Your task to perform on an android device: Open Google Image 0: 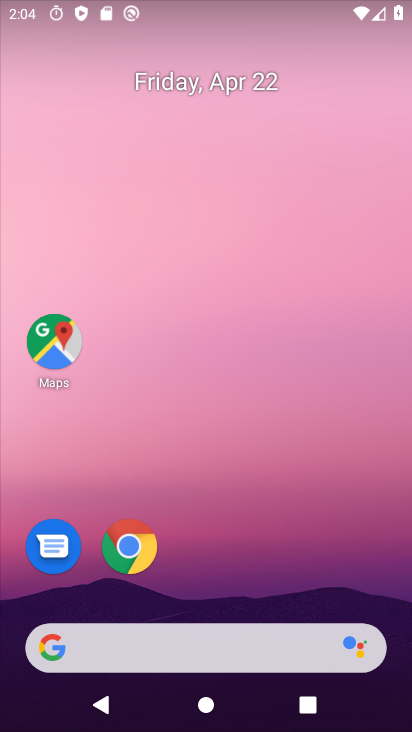
Step 0: click (209, 225)
Your task to perform on an android device: Open Google Image 1: 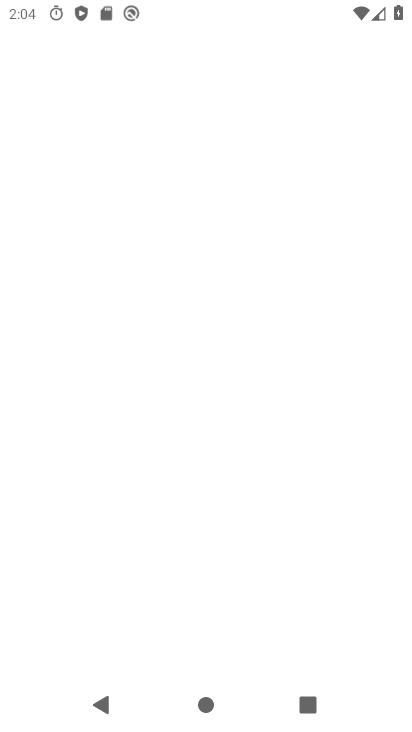
Step 1: drag from (233, 594) to (258, 238)
Your task to perform on an android device: Open Google Image 2: 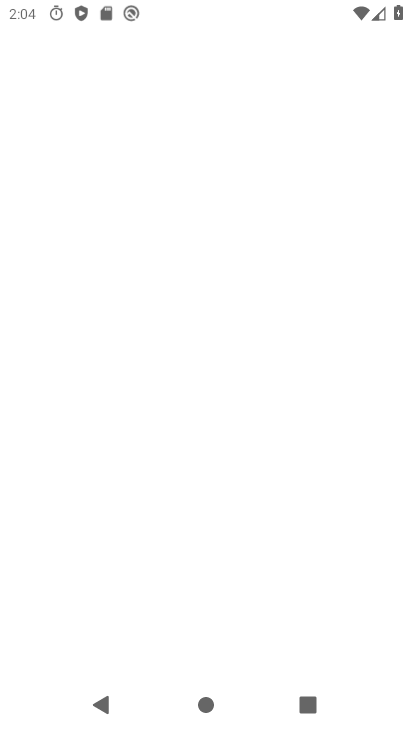
Step 2: press home button
Your task to perform on an android device: Open Google Image 3: 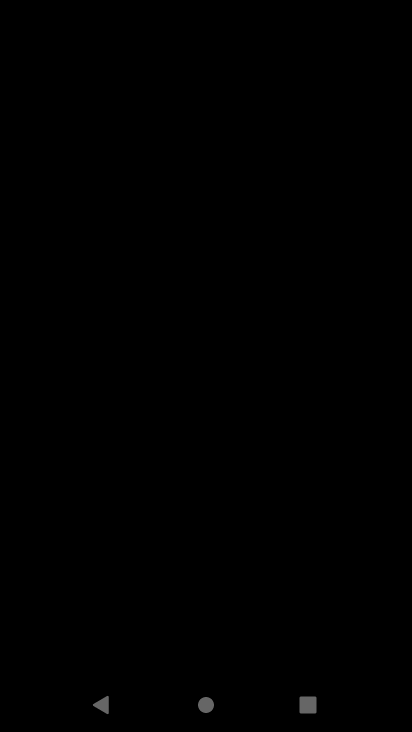
Step 3: press home button
Your task to perform on an android device: Open Google Image 4: 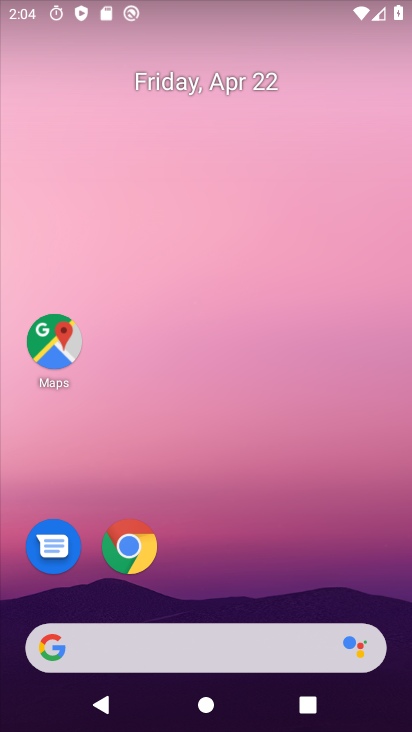
Step 4: drag from (186, 532) to (209, 246)
Your task to perform on an android device: Open Google Image 5: 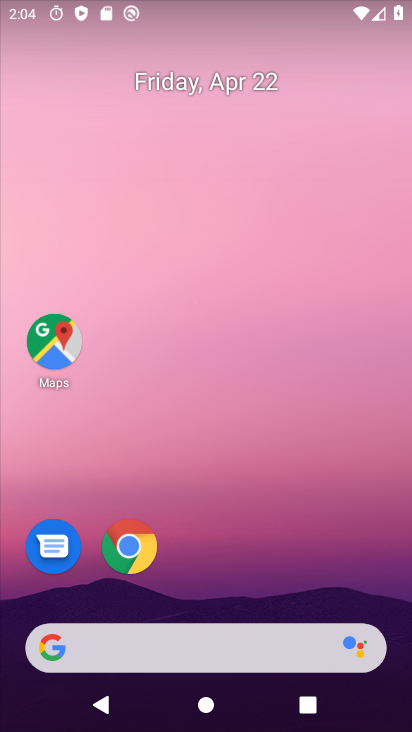
Step 5: drag from (180, 447) to (211, 46)
Your task to perform on an android device: Open Google Image 6: 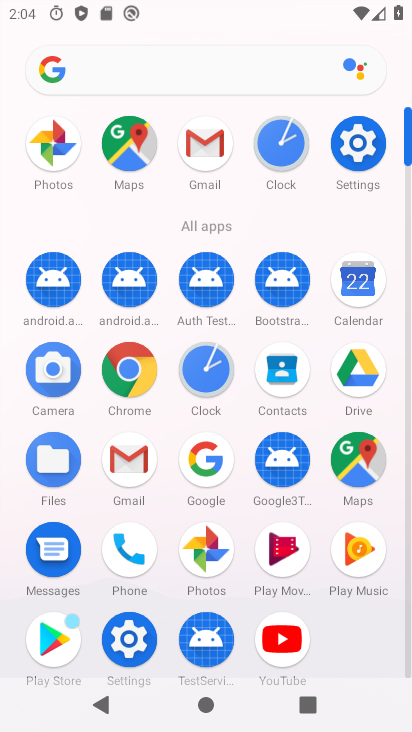
Step 6: click (204, 451)
Your task to perform on an android device: Open Google Image 7: 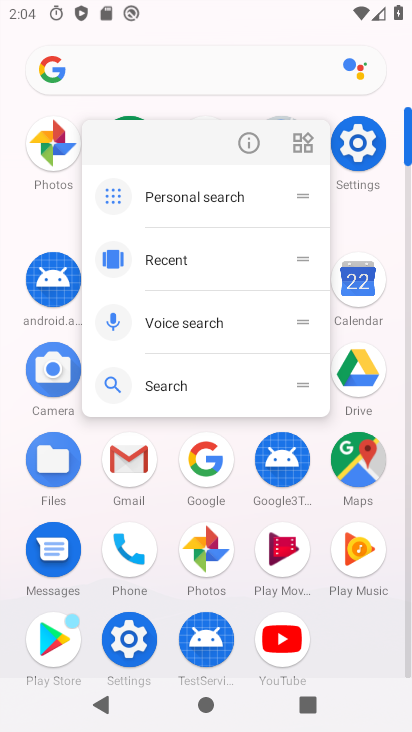
Step 7: click (246, 137)
Your task to perform on an android device: Open Google Image 8: 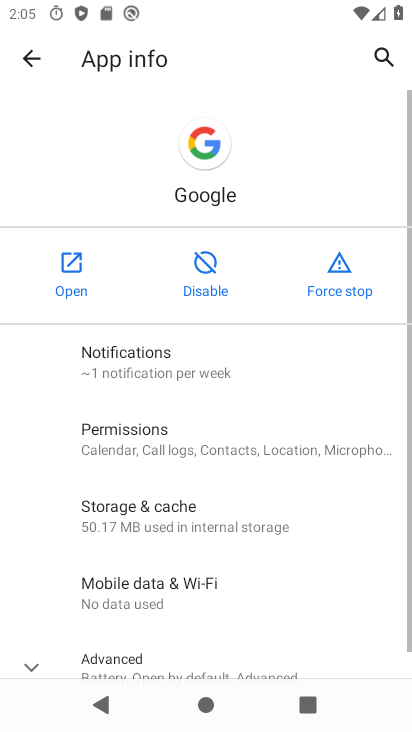
Step 8: click (89, 277)
Your task to perform on an android device: Open Google Image 9: 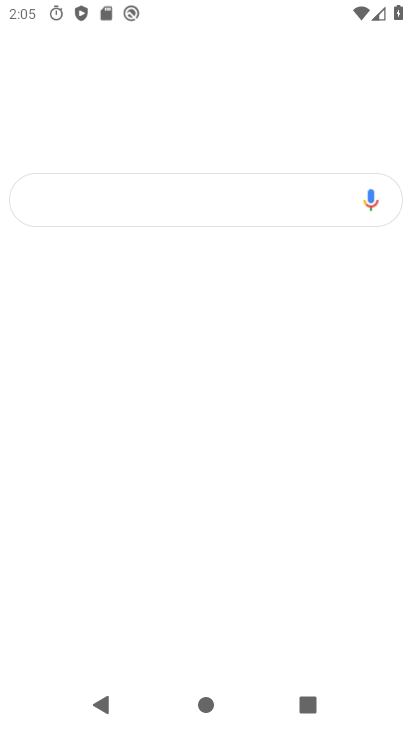
Step 9: click (56, 244)
Your task to perform on an android device: Open Google Image 10: 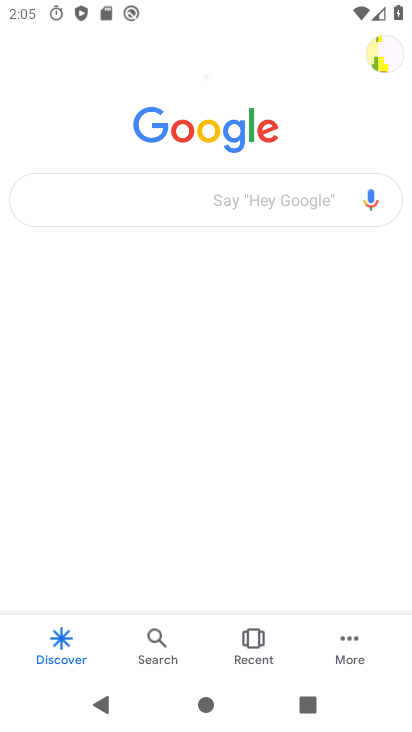
Step 10: task complete